Your task to perform on an android device: change timer sound Image 0: 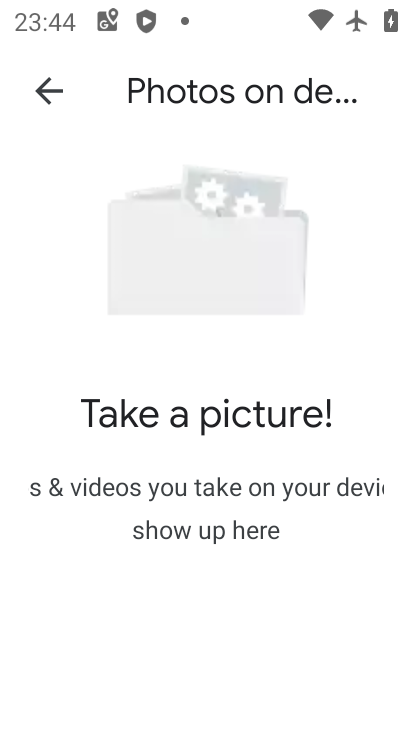
Step 0: press home button
Your task to perform on an android device: change timer sound Image 1: 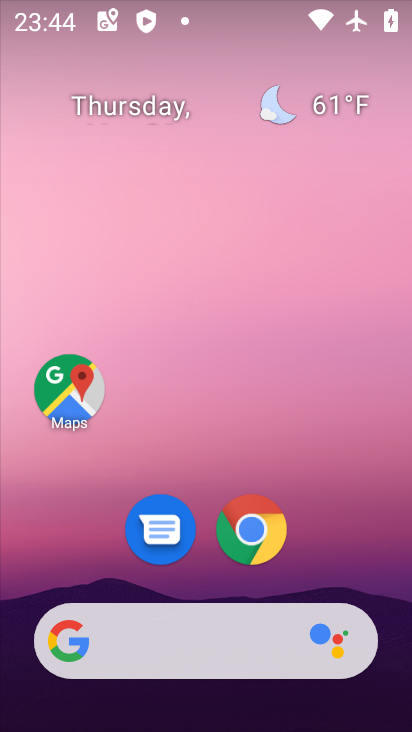
Step 1: drag from (311, 534) to (309, 57)
Your task to perform on an android device: change timer sound Image 2: 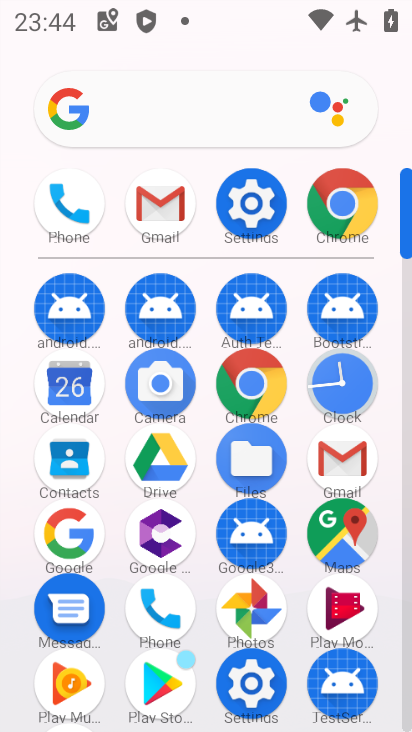
Step 2: click (263, 215)
Your task to perform on an android device: change timer sound Image 3: 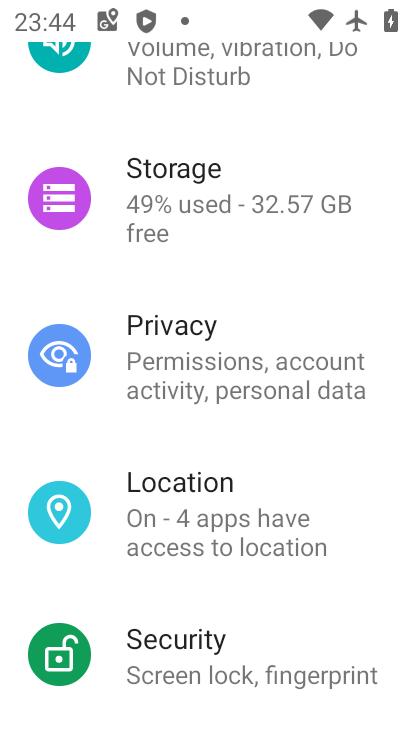
Step 3: drag from (215, 604) to (240, 706)
Your task to perform on an android device: change timer sound Image 4: 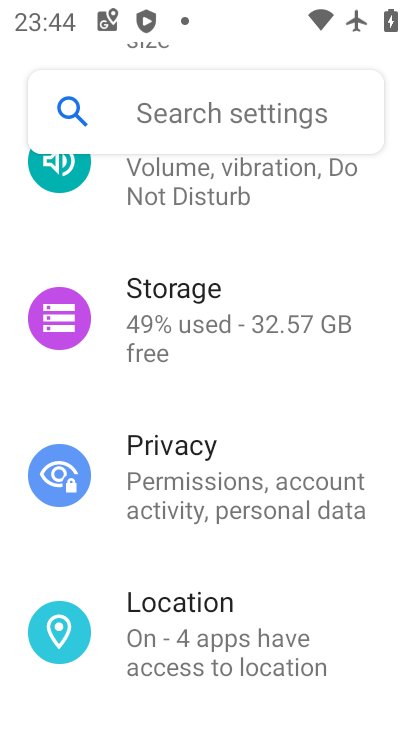
Step 4: drag from (221, 295) to (221, 631)
Your task to perform on an android device: change timer sound Image 5: 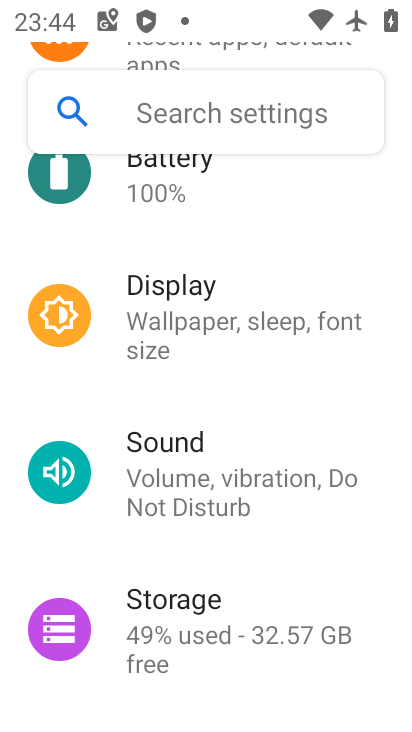
Step 5: click (182, 464)
Your task to perform on an android device: change timer sound Image 6: 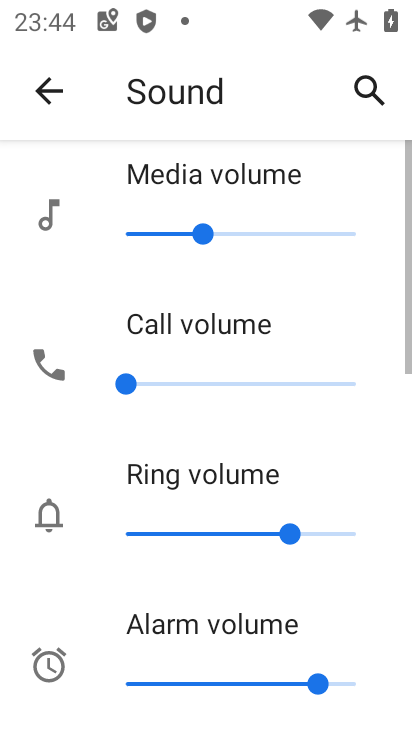
Step 6: task complete